Your task to perform on an android device: Turn on the flashlight Image 0: 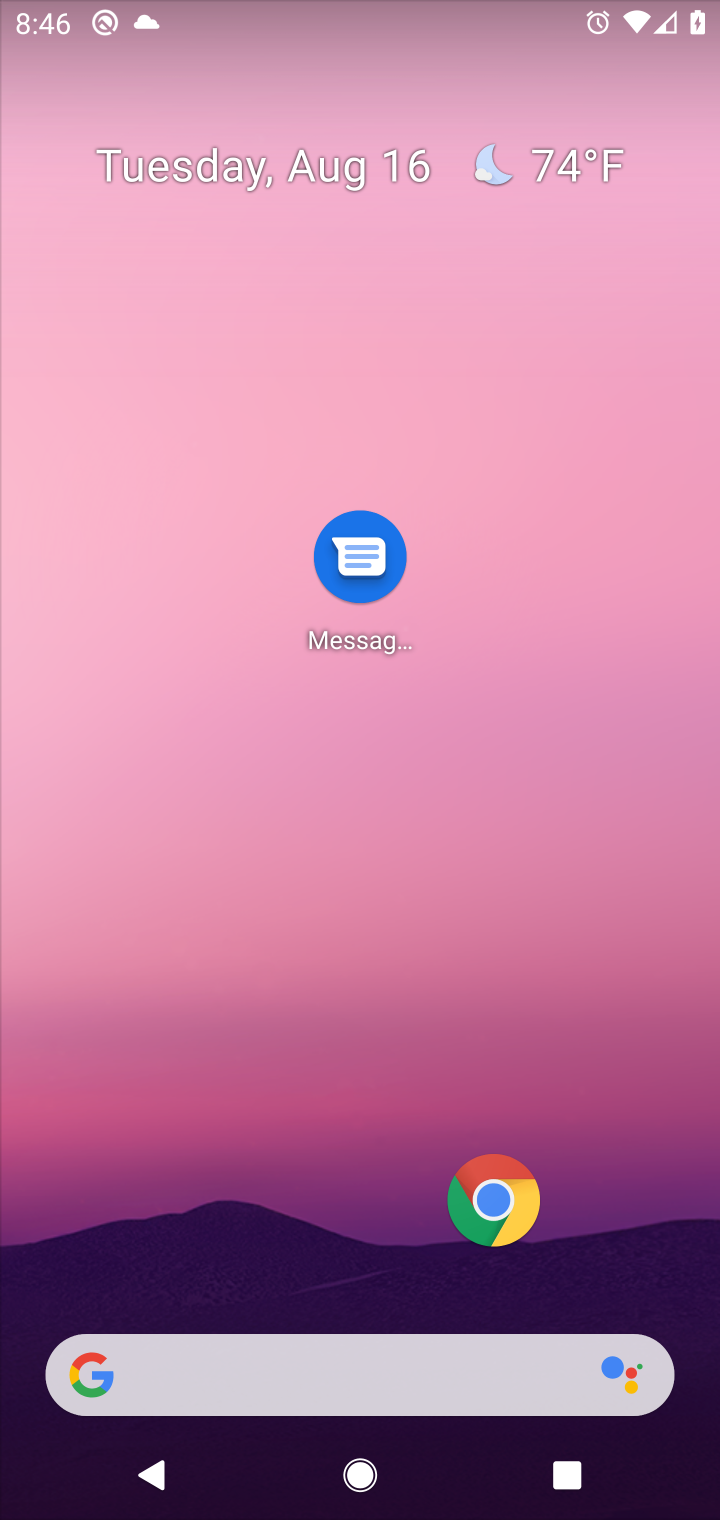
Step 0: drag from (48, 1468) to (359, 392)
Your task to perform on an android device: Turn on the flashlight Image 1: 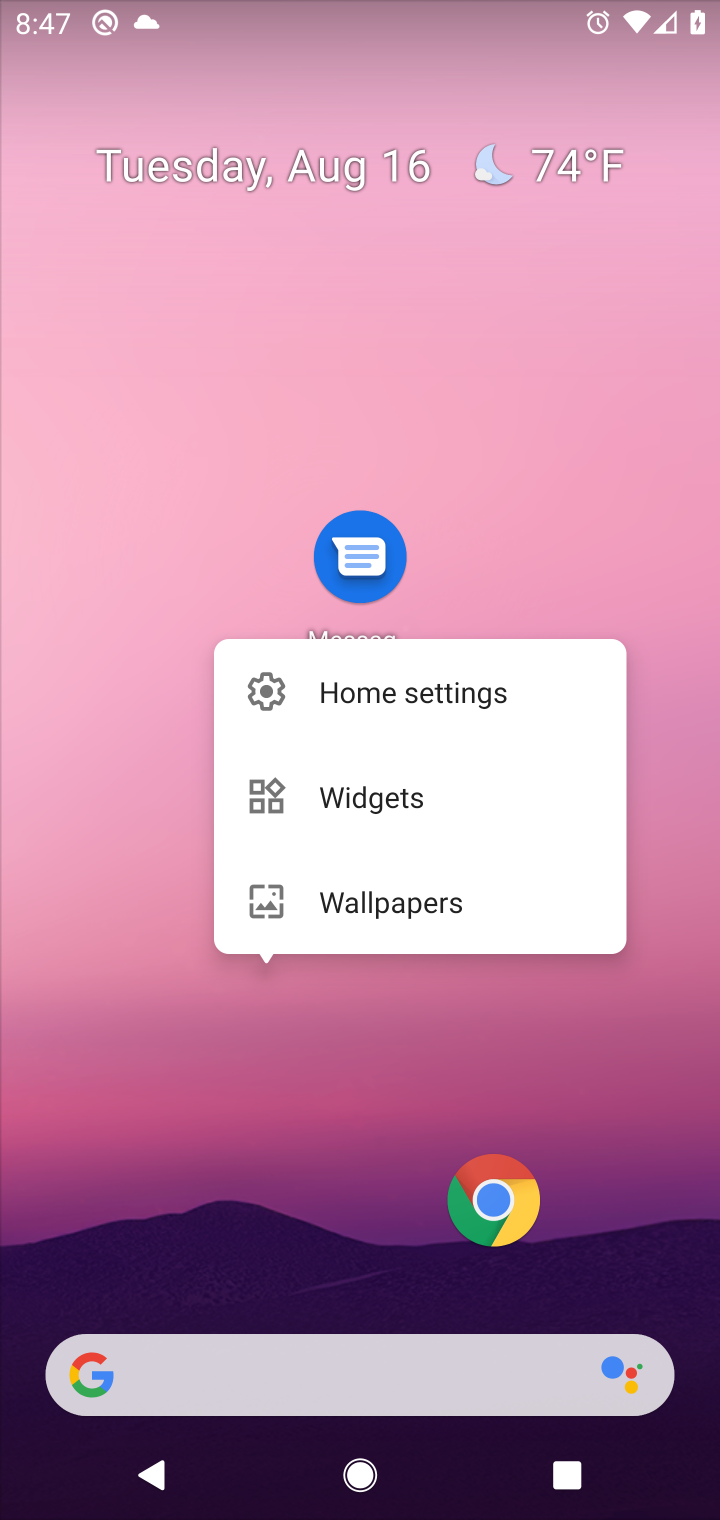
Step 1: task complete